Your task to perform on an android device: toggle pop-ups in chrome Image 0: 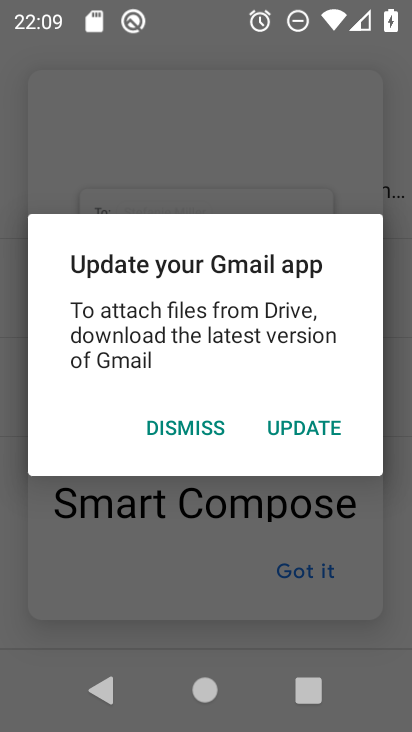
Step 0: press home button
Your task to perform on an android device: toggle pop-ups in chrome Image 1: 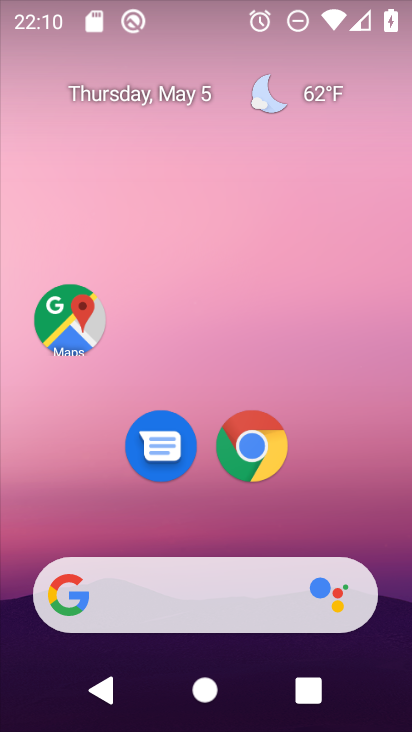
Step 1: drag from (275, 625) to (322, 57)
Your task to perform on an android device: toggle pop-ups in chrome Image 2: 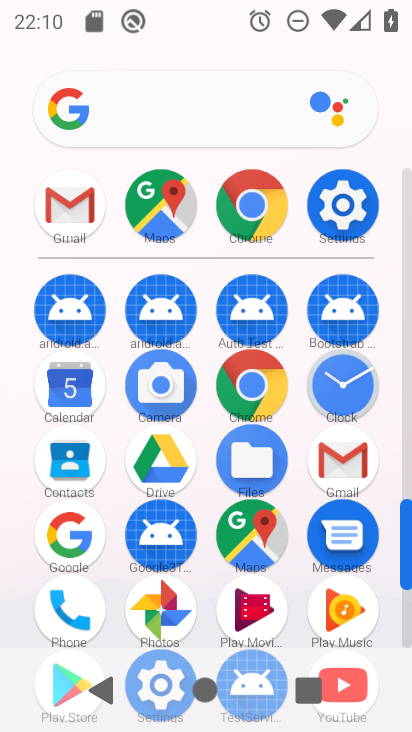
Step 2: click (255, 389)
Your task to perform on an android device: toggle pop-ups in chrome Image 3: 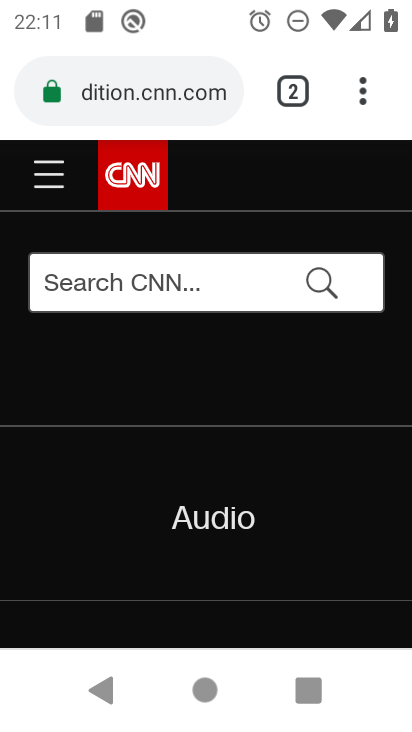
Step 3: click (295, 108)
Your task to perform on an android device: toggle pop-ups in chrome Image 4: 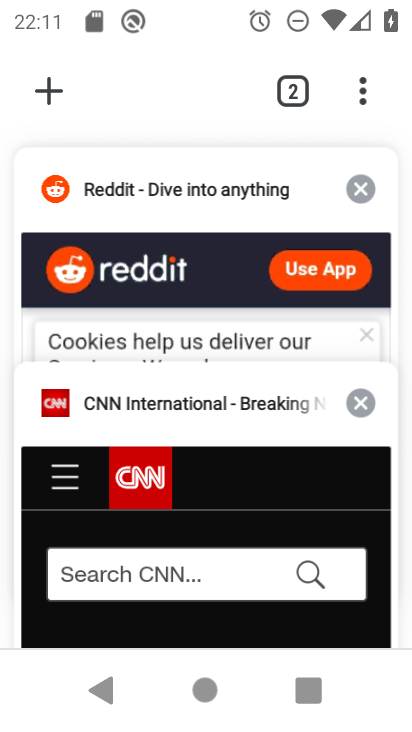
Step 4: click (56, 81)
Your task to perform on an android device: toggle pop-ups in chrome Image 5: 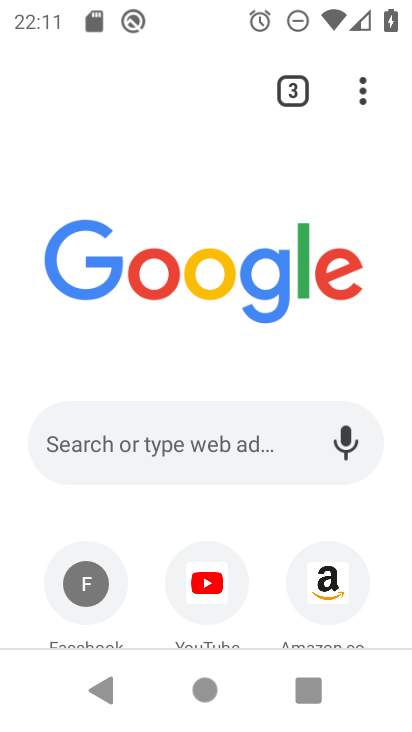
Step 5: click (359, 110)
Your task to perform on an android device: toggle pop-ups in chrome Image 6: 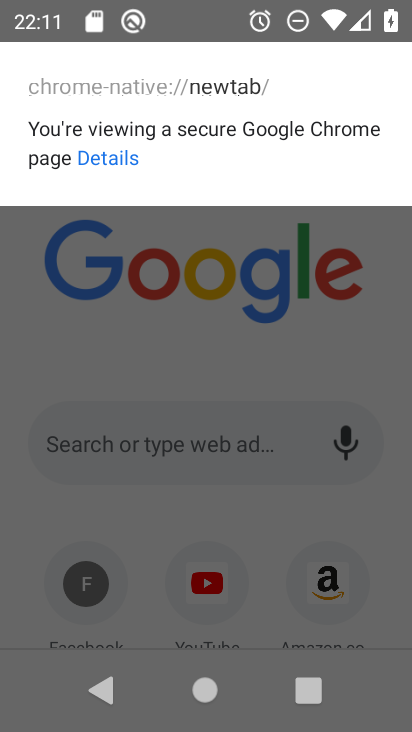
Step 6: click (297, 289)
Your task to perform on an android device: toggle pop-ups in chrome Image 7: 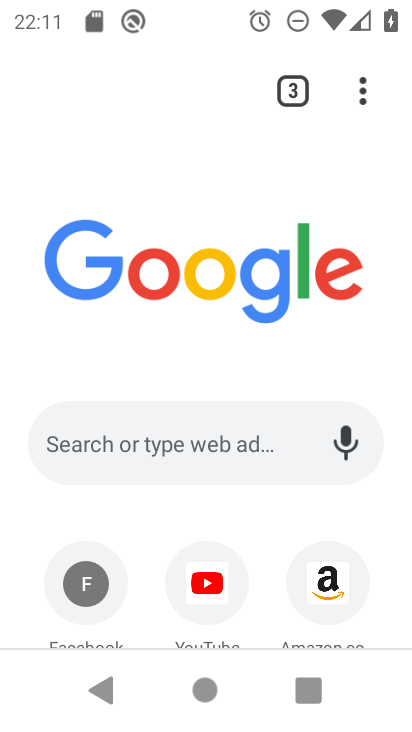
Step 7: click (365, 100)
Your task to perform on an android device: toggle pop-ups in chrome Image 8: 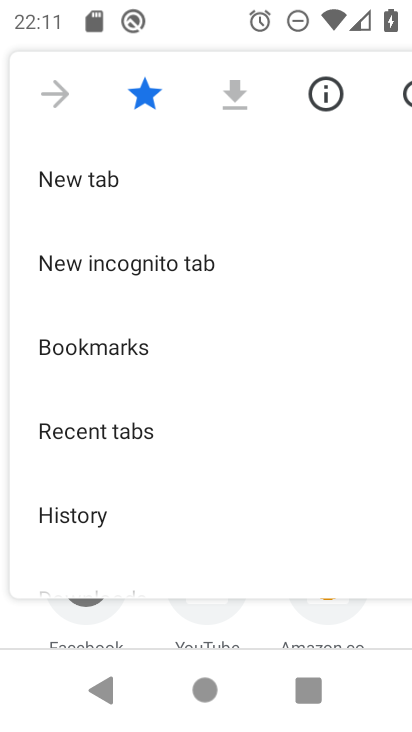
Step 8: drag from (173, 433) to (215, 303)
Your task to perform on an android device: toggle pop-ups in chrome Image 9: 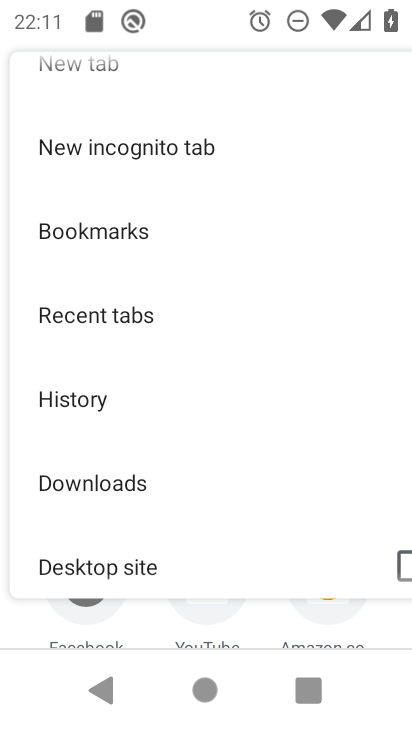
Step 9: drag from (117, 554) to (158, 417)
Your task to perform on an android device: toggle pop-ups in chrome Image 10: 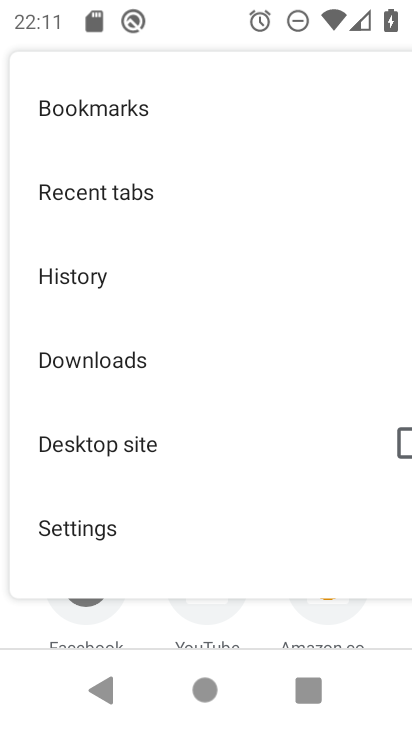
Step 10: click (94, 523)
Your task to perform on an android device: toggle pop-ups in chrome Image 11: 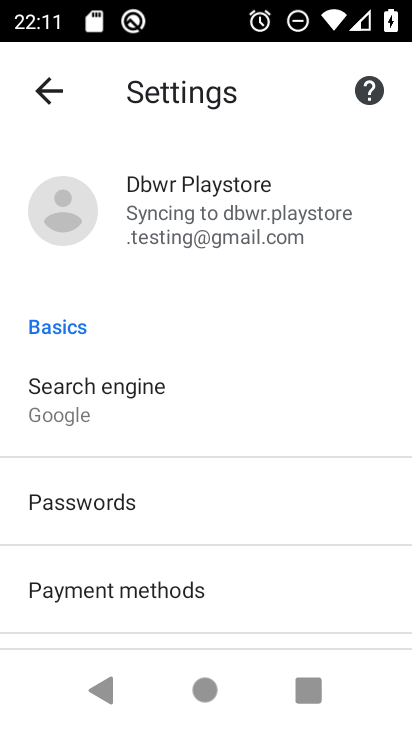
Step 11: drag from (160, 560) to (197, 330)
Your task to perform on an android device: toggle pop-ups in chrome Image 12: 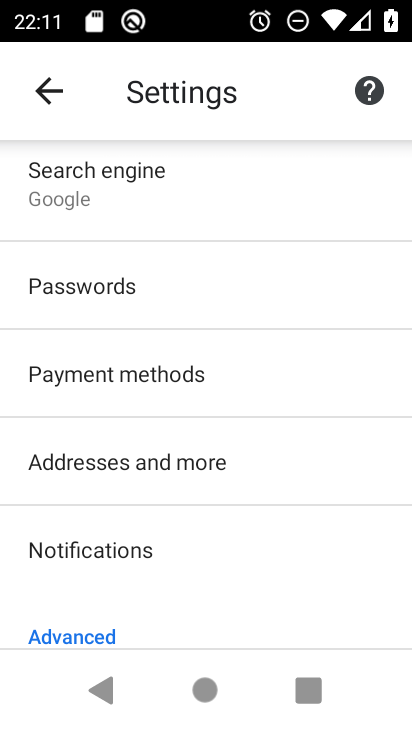
Step 12: drag from (109, 629) to (161, 342)
Your task to perform on an android device: toggle pop-ups in chrome Image 13: 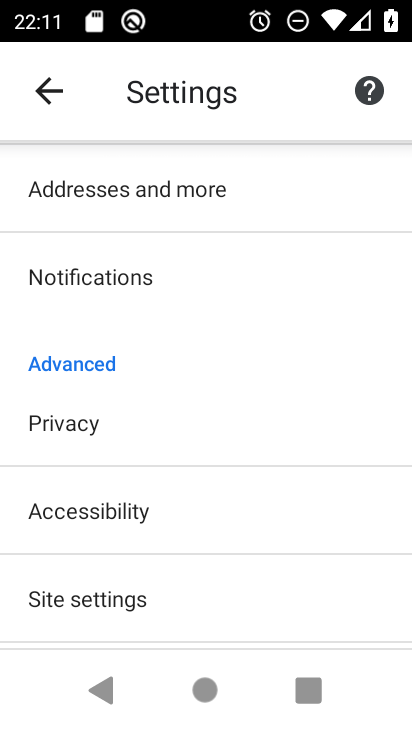
Step 13: drag from (159, 552) to (190, 266)
Your task to perform on an android device: toggle pop-ups in chrome Image 14: 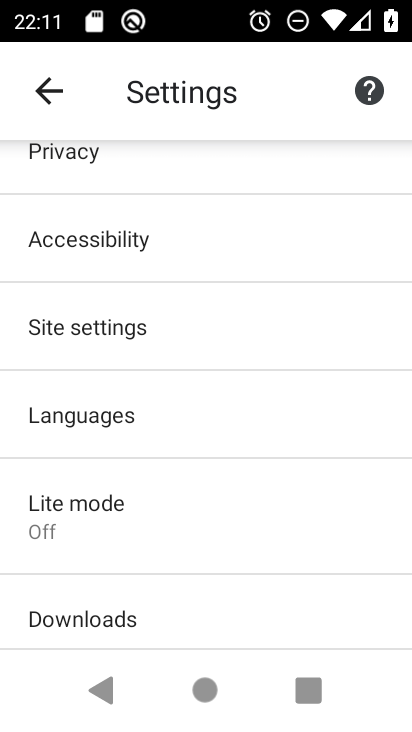
Step 14: drag from (136, 594) to (164, 483)
Your task to perform on an android device: toggle pop-ups in chrome Image 15: 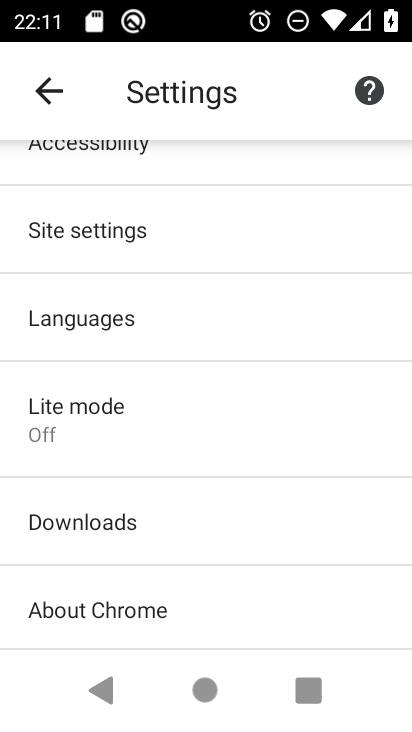
Step 15: click (74, 243)
Your task to perform on an android device: toggle pop-ups in chrome Image 16: 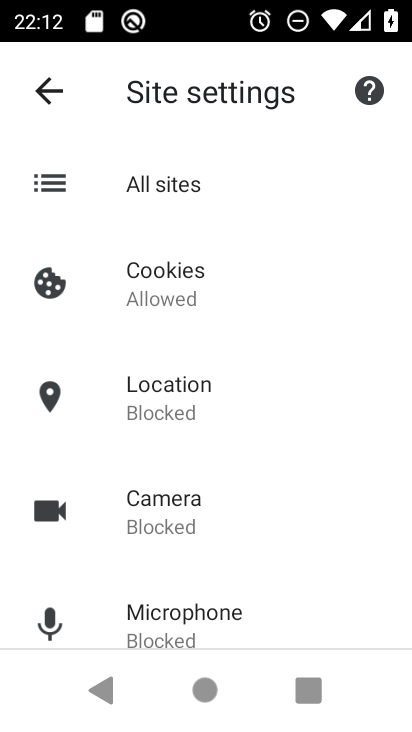
Step 16: drag from (140, 489) to (132, 273)
Your task to perform on an android device: toggle pop-ups in chrome Image 17: 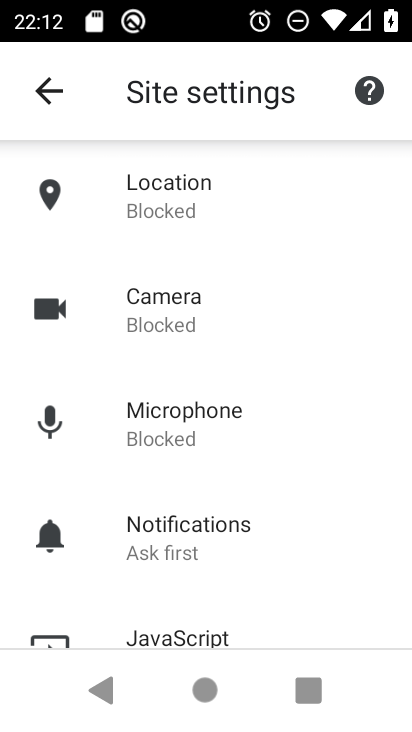
Step 17: drag from (201, 597) to (201, 408)
Your task to perform on an android device: toggle pop-ups in chrome Image 18: 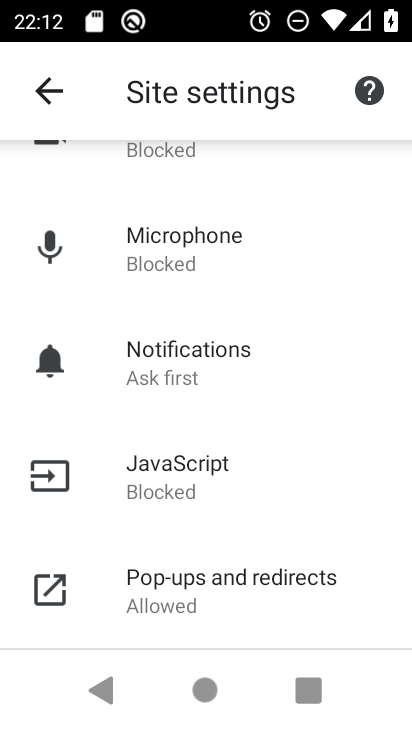
Step 18: click (189, 564)
Your task to perform on an android device: toggle pop-ups in chrome Image 19: 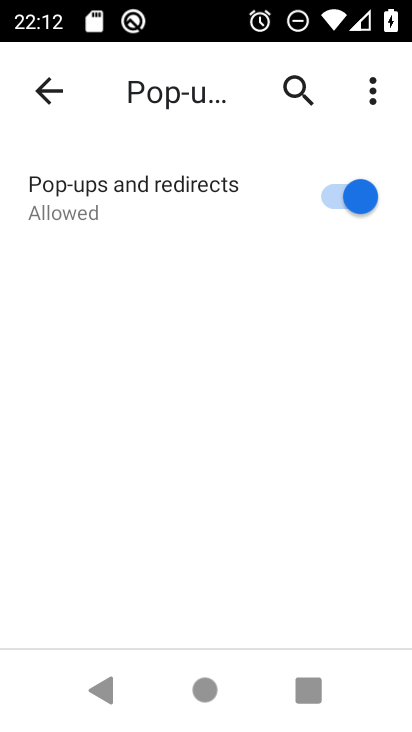
Step 19: task complete